Your task to perform on an android device: find photos in the google photos app Image 0: 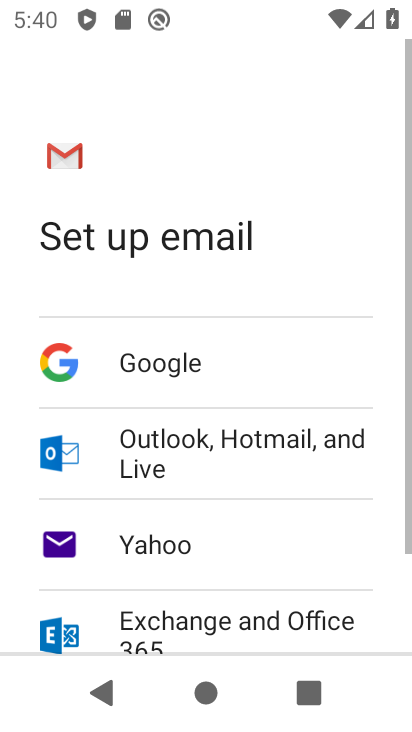
Step 0: press home button
Your task to perform on an android device: find photos in the google photos app Image 1: 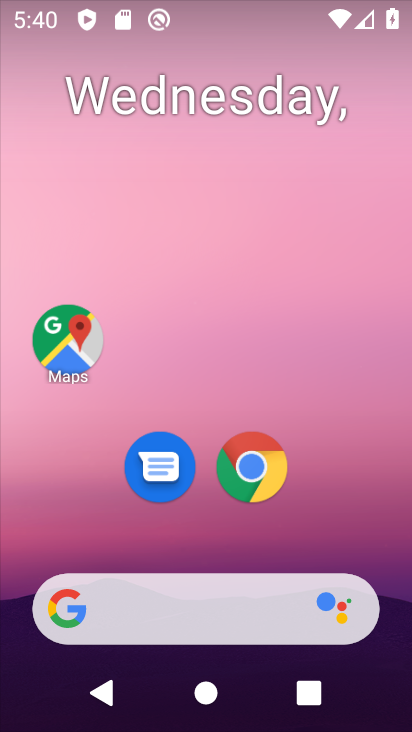
Step 1: drag from (325, 537) to (340, 89)
Your task to perform on an android device: find photos in the google photos app Image 2: 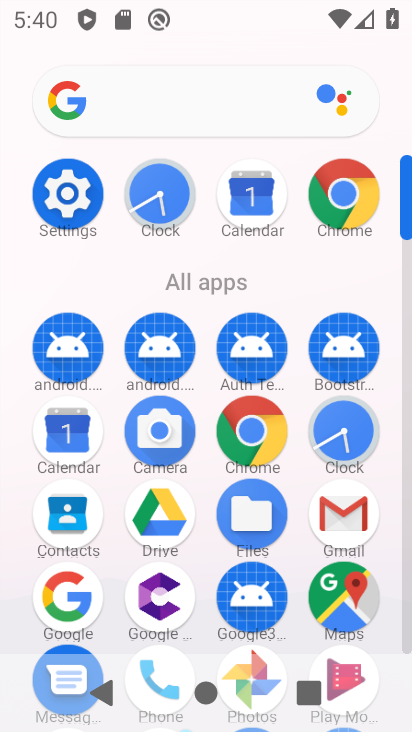
Step 2: drag from (300, 575) to (316, 163)
Your task to perform on an android device: find photos in the google photos app Image 3: 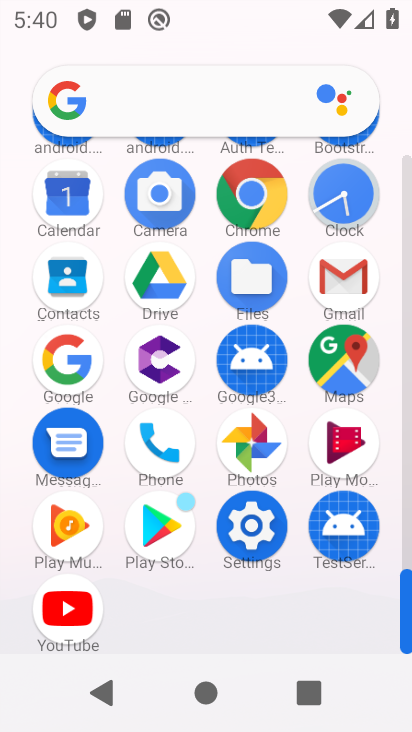
Step 3: click (252, 447)
Your task to perform on an android device: find photos in the google photos app Image 4: 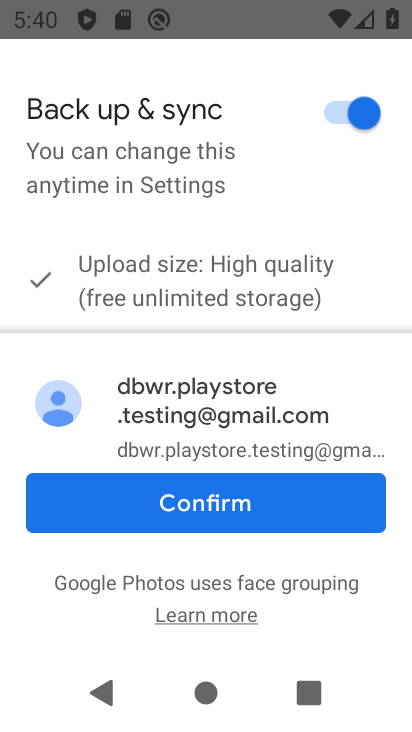
Step 4: click (238, 494)
Your task to perform on an android device: find photos in the google photos app Image 5: 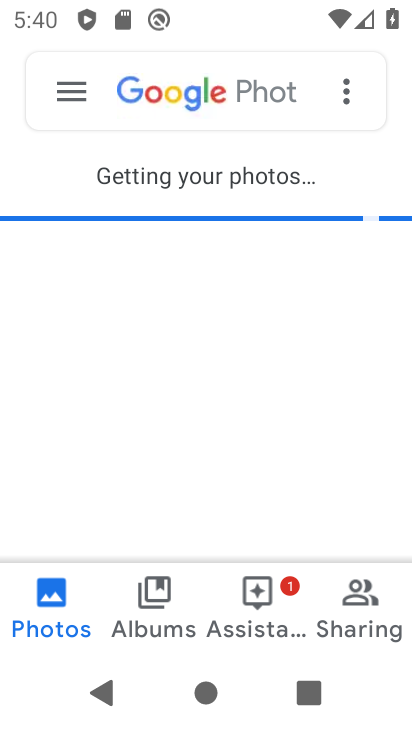
Step 5: click (60, 604)
Your task to perform on an android device: find photos in the google photos app Image 6: 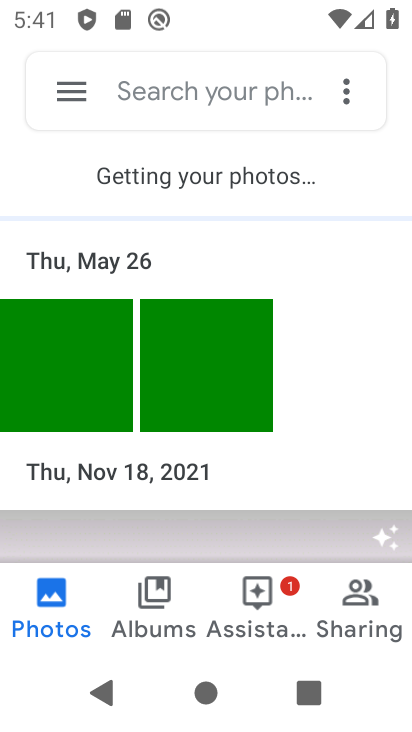
Step 6: task complete